Your task to perform on an android device: make emails show in primary in the gmail app Image 0: 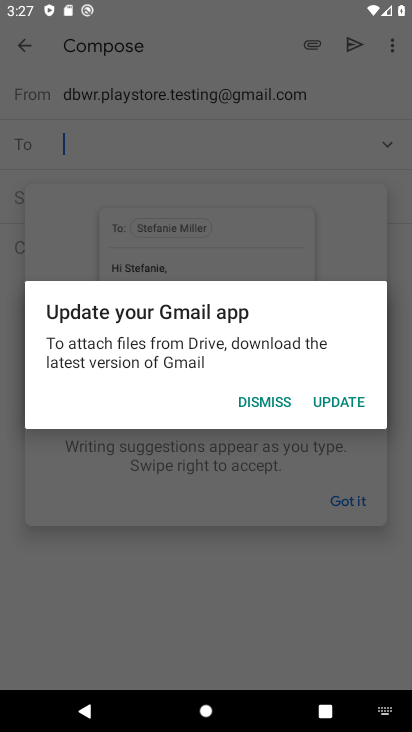
Step 0: press home button
Your task to perform on an android device: make emails show in primary in the gmail app Image 1: 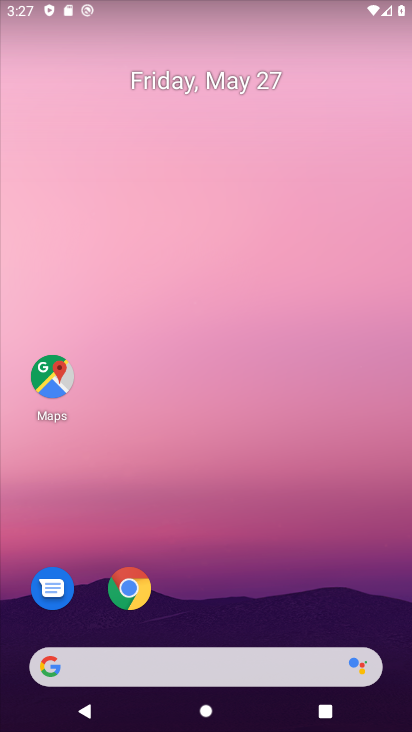
Step 1: drag from (194, 617) to (126, 30)
Your task to perform on an android device: make emails show in primary in the gmail app Image 2: 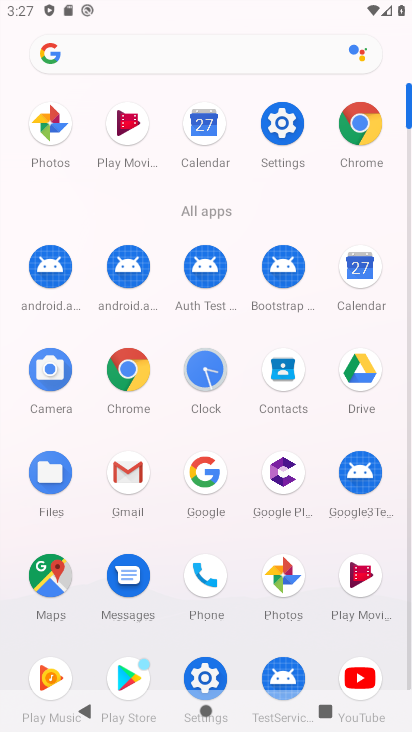
Step 2: click (136, 478)
Your task to perform on an android device: make emails show in primary in the gmail app Image 3: 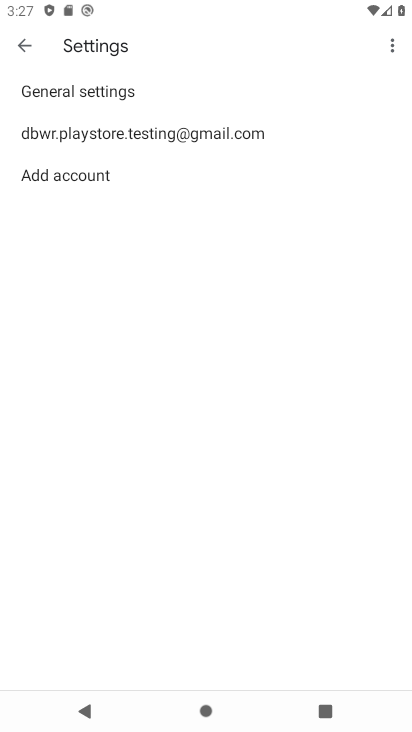
Step 3: drag from (56, 99) to (78, 241)
Your task to perform on an android device: make emails show in primary in the gmail app Image 4: 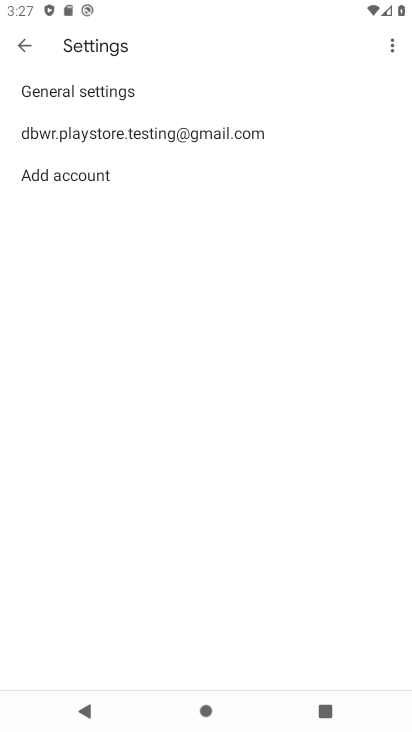
Step 4: click (75, 140)
Your task to perform on an android device: make emails show in primary in the gmail app Image 5: 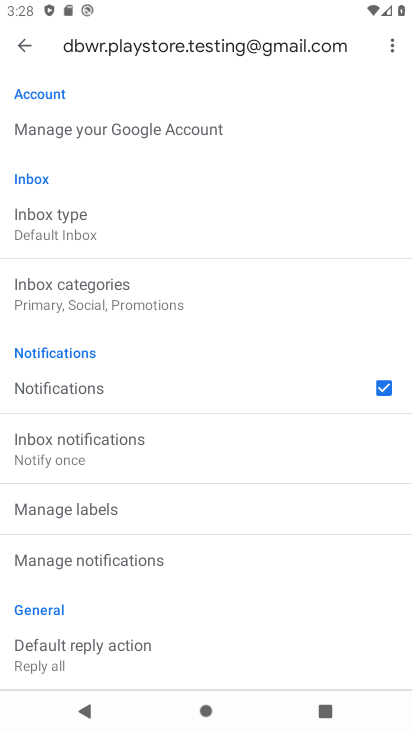
Step 5: click (70, 225)
Your task to perform on an android device: make emails show in primary in the gmail app Image 6: 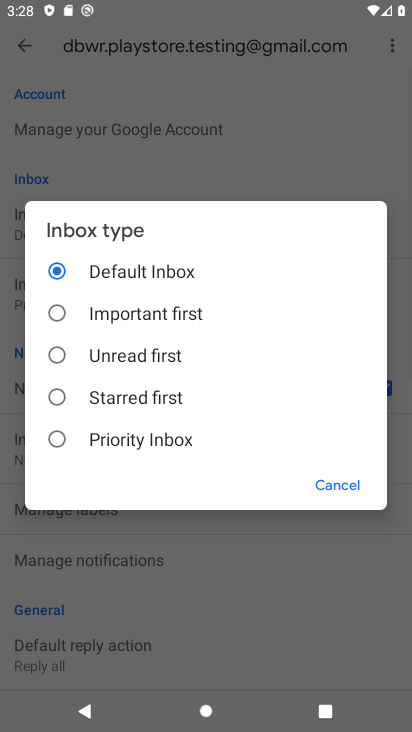
Step 6: click (84, 271)
Your task to perform on an android device: make emails show in primary in the gmail app Image 7: 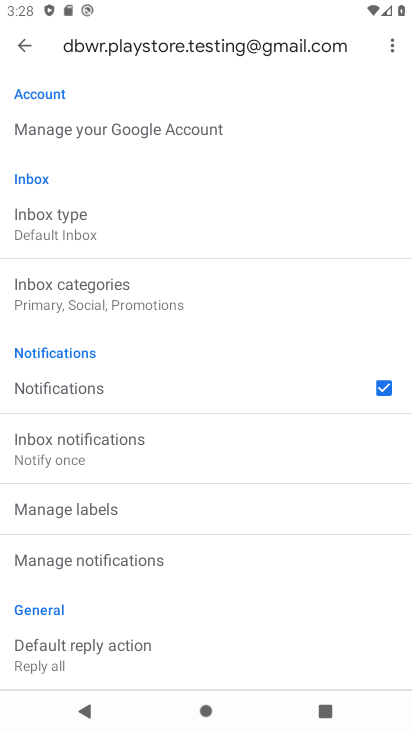
Step 7: click (25, 43)
Your task to perform on an android device: make emails show in primary in the gmail app Image 8: 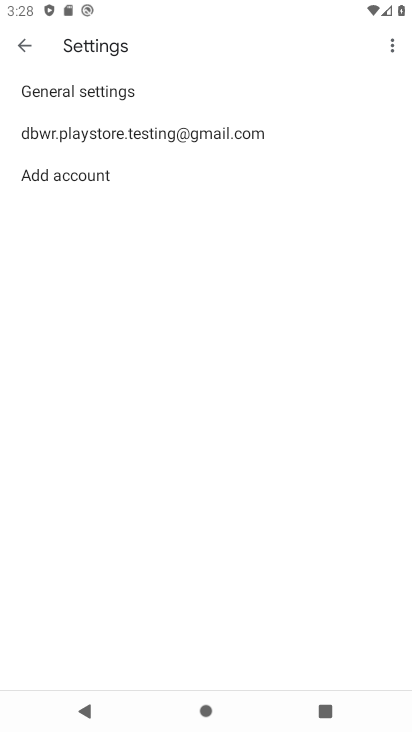
Step 8: click (25, 42)
Your task to perform on an android device: make emails show in primary in the gmail app Image 9: 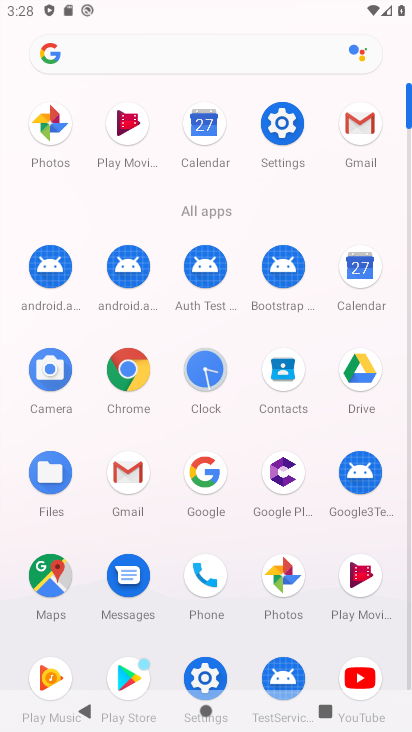
Step 9: click (125, 482)
Your task to perform on an android device: make emails show in primary in the gmail app Image 10: 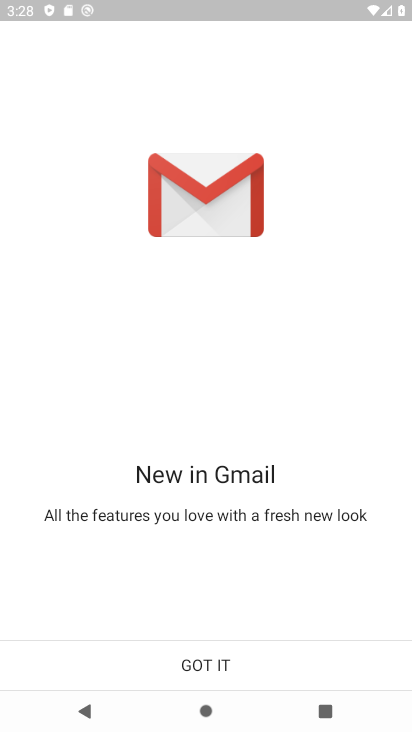
Step 10: click (184, 666)
Your task to perform on an android device: make emails show in primary in the gmail app Image 11: 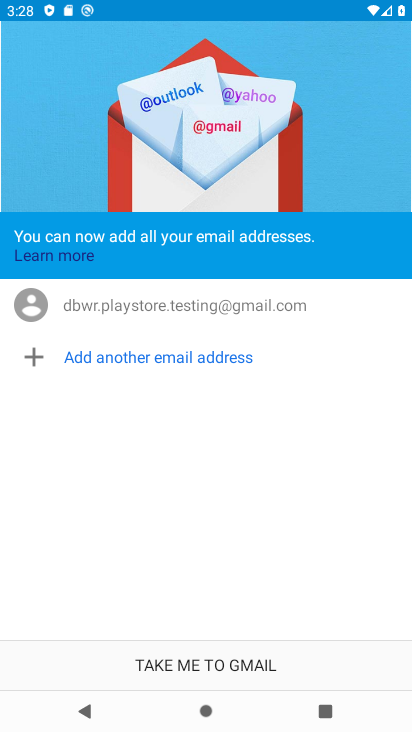
Step 11: click (177, 668)
Your task to perform on an android device: make emails show in primary in the gmail app Image 12: 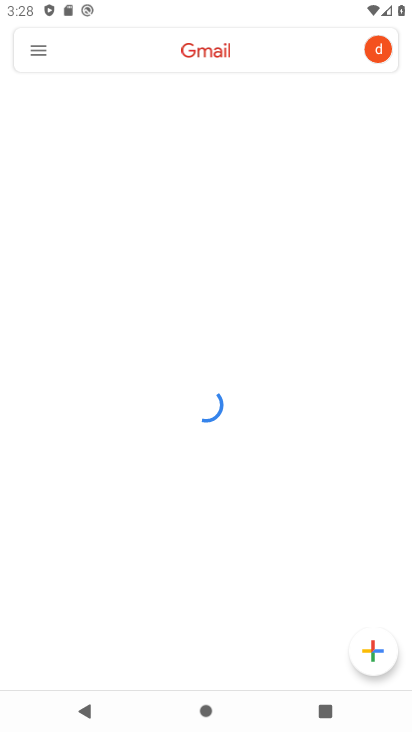
Step 12: task complete